Your task to perform on an android device: What's the weather going to be this weekend? Image 0: 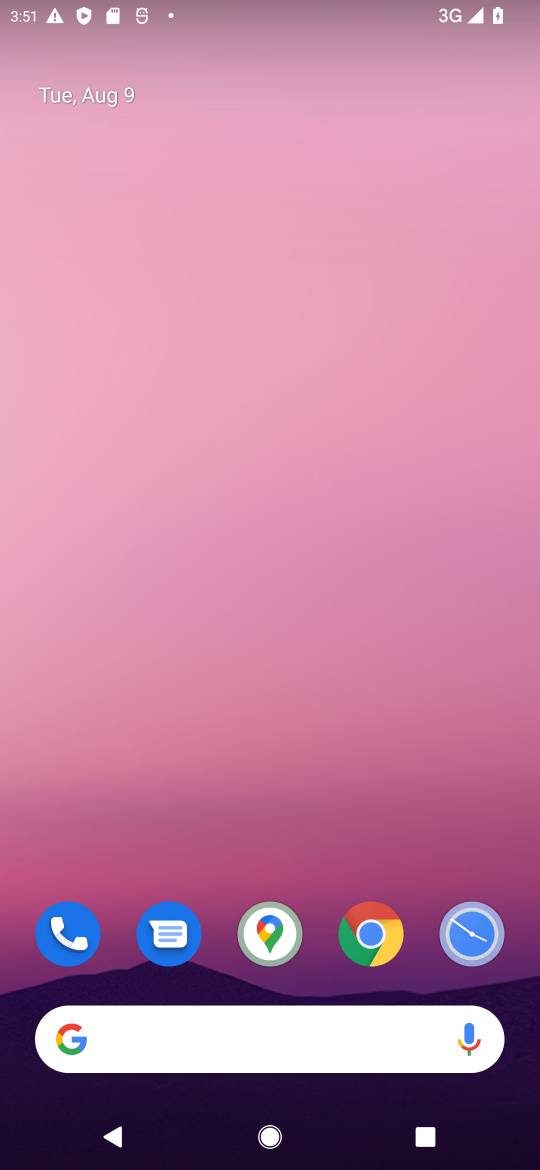
Step 0: drag from (293, 1000) to (383, 221)
Your task to perform on an android device: What's the weather going to be this weekend? Image 1: 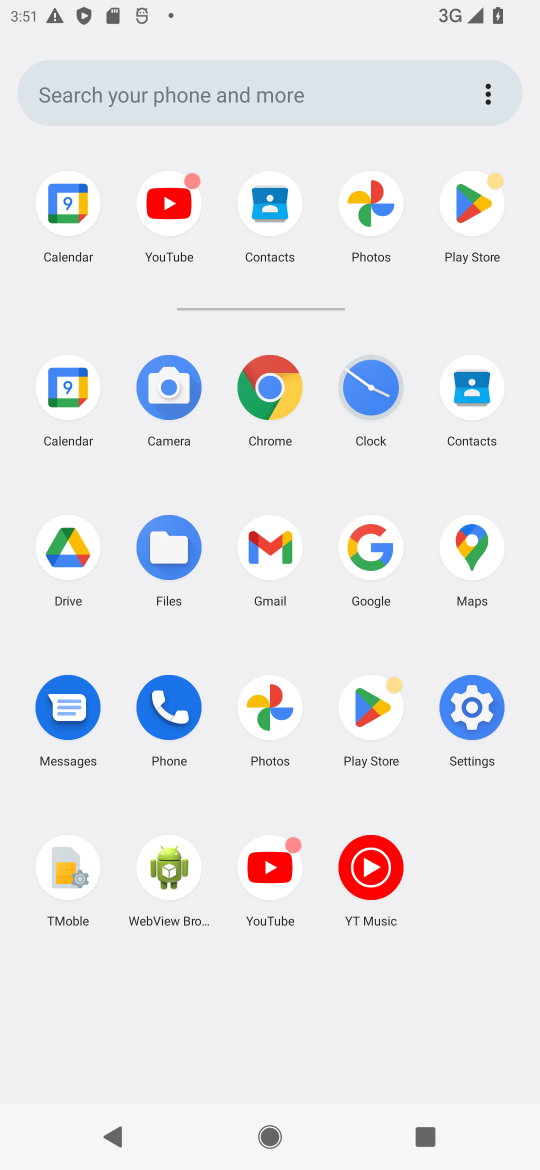
Step 1: press back button
Your task to perform on an android device: What's the weather going to be this weekend? Image 2: 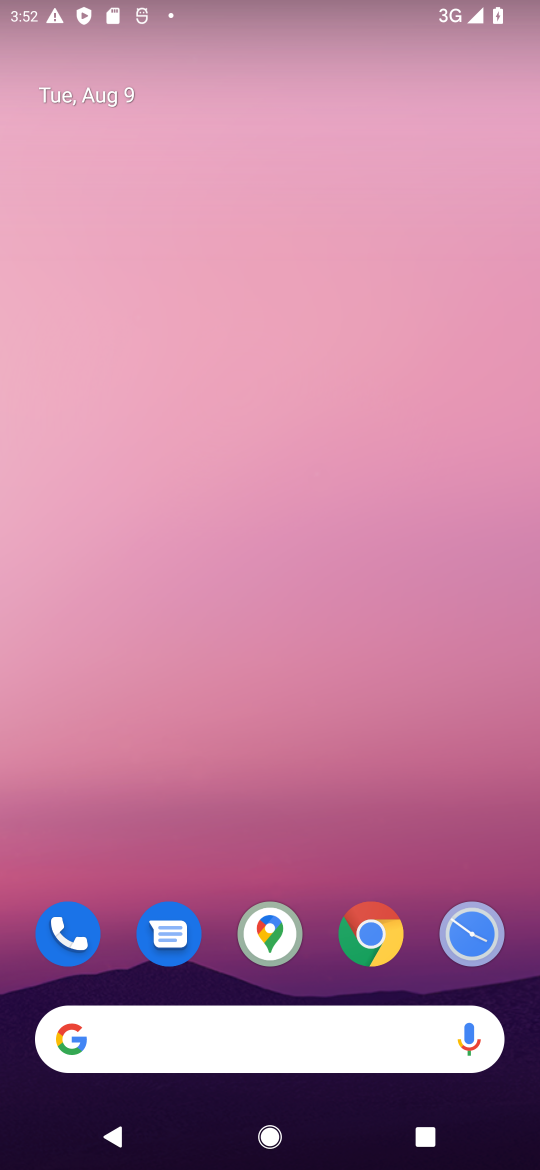
Step 2: click (273, 1029)
Your task to perform on an android device: What's the weather going to be this weekend? Image 3: 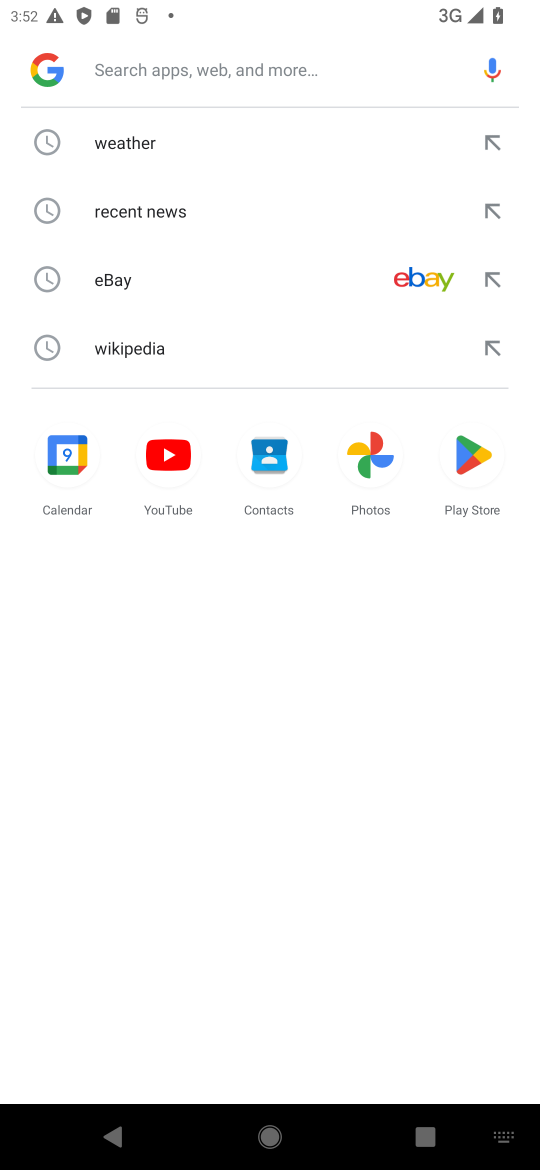
Step 3: click (224, 129)
Your task to perform on an android device: What's the weather going to be this weekend? Image 4: 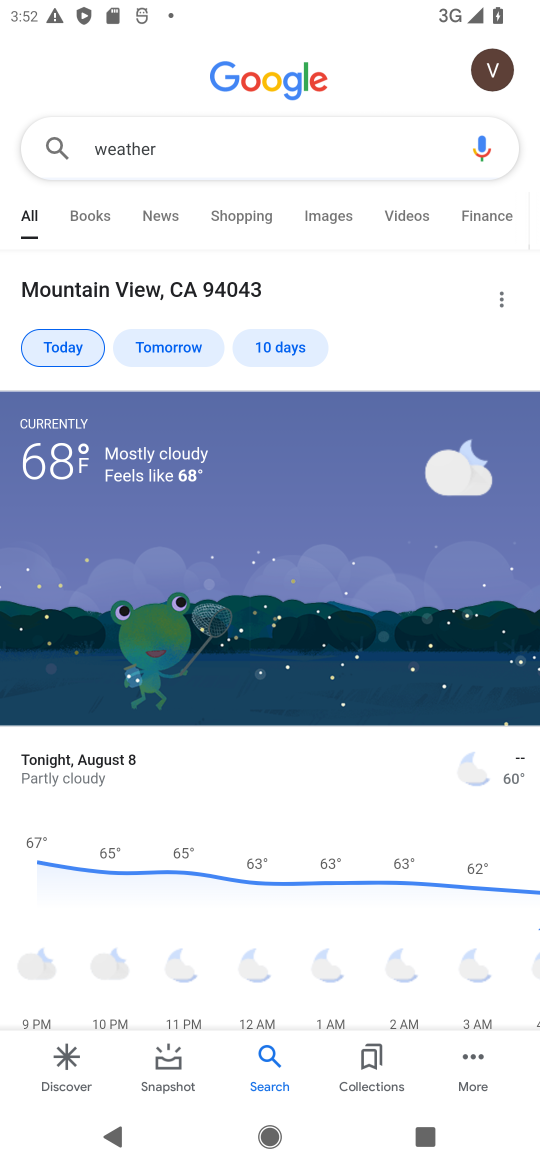
Step 4: task complete